Your task to perform on an android device: remove spam from my inbox in the gmail app Image 0: 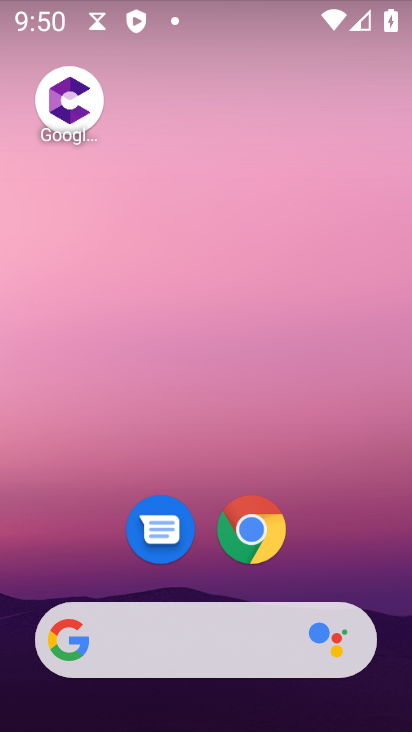
Step 0: drag from (333, 550) to (313, 164)
Your task to perform on an android device: remove spam from my inbox in the gmail app Image 1: 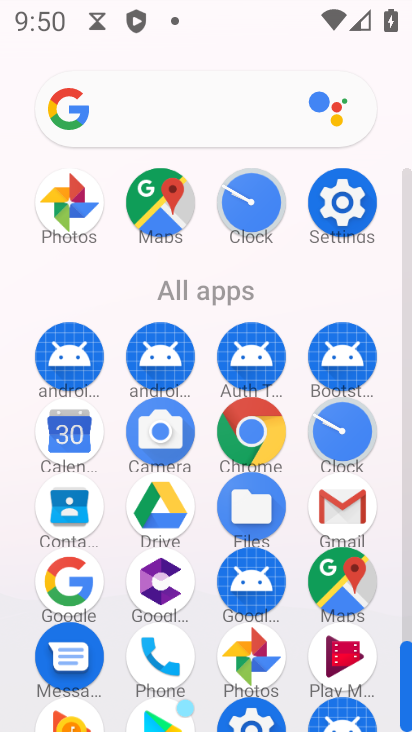
Step 1: drag from (203, 499) to (208, 286)
Your task to perform on an android device: remove spam from my inbox in the gmail app Image 2: 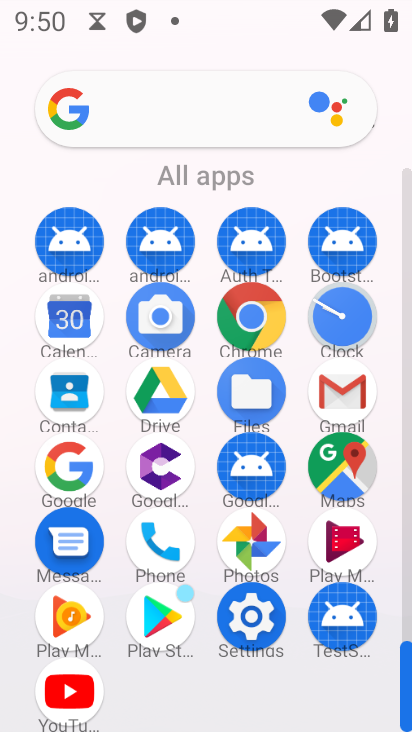
Step 2: click (342, 391)
Your task to perform on an android device: remove spam from my inbox in the gmail app Image 3: 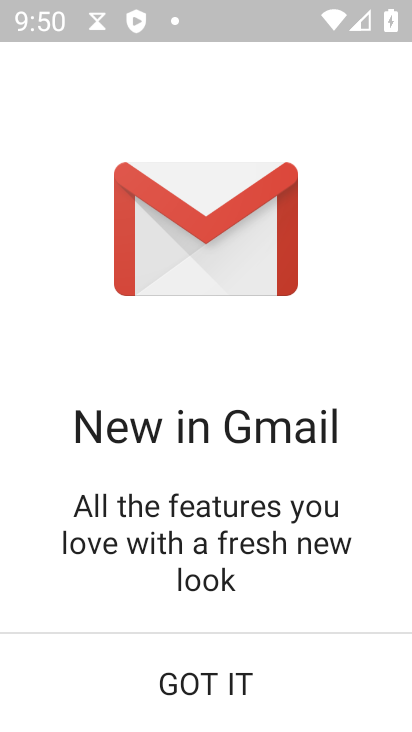
Step 3: click (208, 677)
Your task to perform on an android device: remove spam from my inbox in the gmail app Image 4: 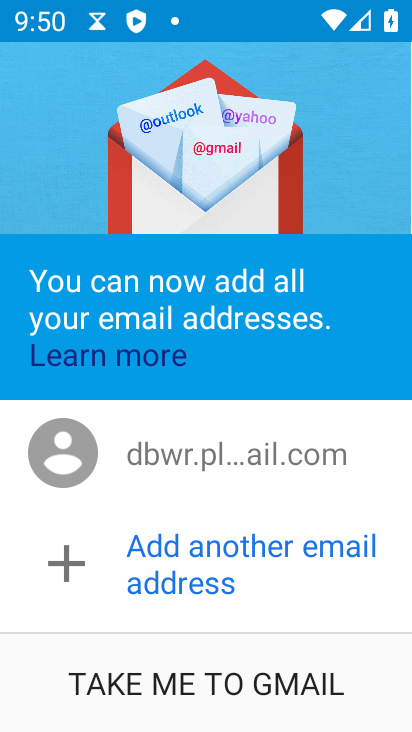
Step 4: click (206, 702)
Your task to perform on an android device: remove spam from my inbox in the gmail app Image 5: 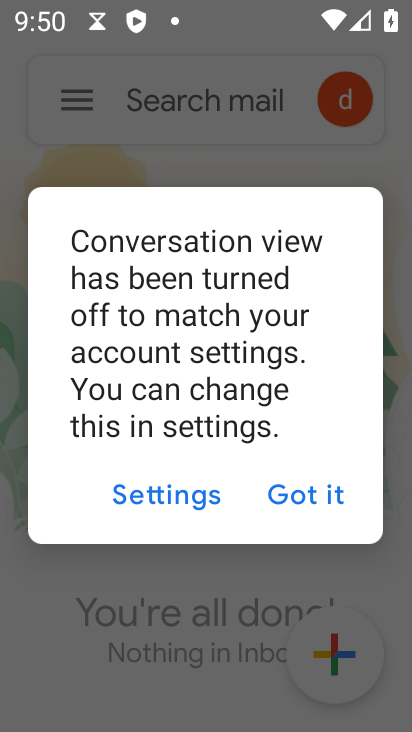
Step 5: click (308, 501)
Your task to perform on an android device: remove spam from my inbox in the gmail app Image 6: 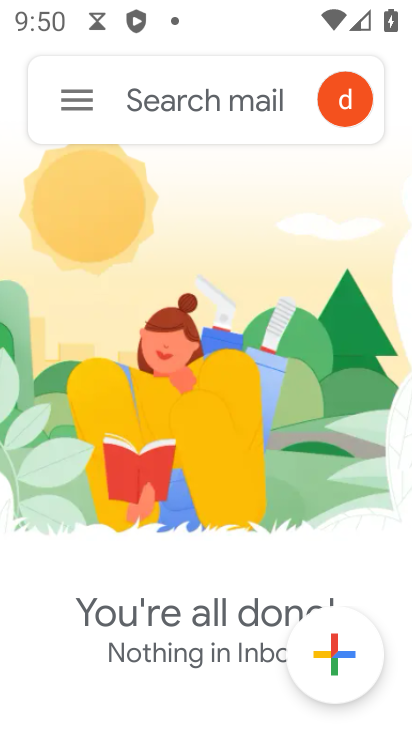
Step 6: click (76, 105)
Your task to perform on an android device: remove spam from my inbox in the gmail app Image 7: 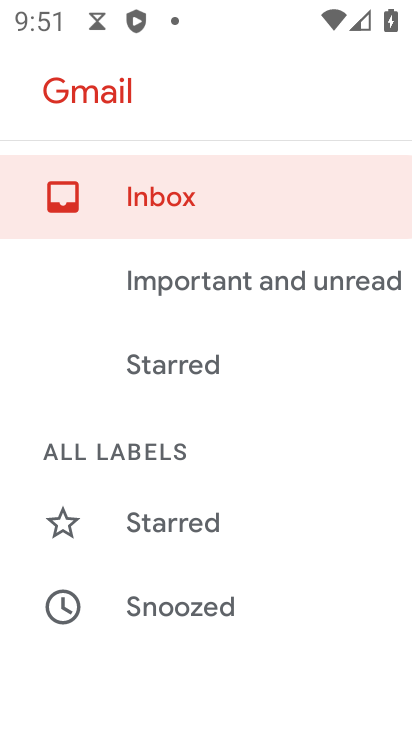
Step 7: drag from (196, 469) to (240, 379)
Your task to perform on an android device: remove spam from my inbox in the gmail app Image 8: 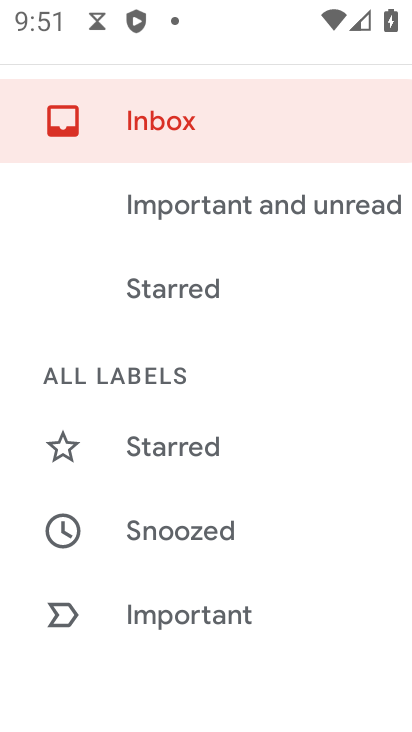
Step 8: drag from (172, 484) to (245, 379)
Your task to perform on an android device: remove spam from my inbox in the gmail app Image 9: 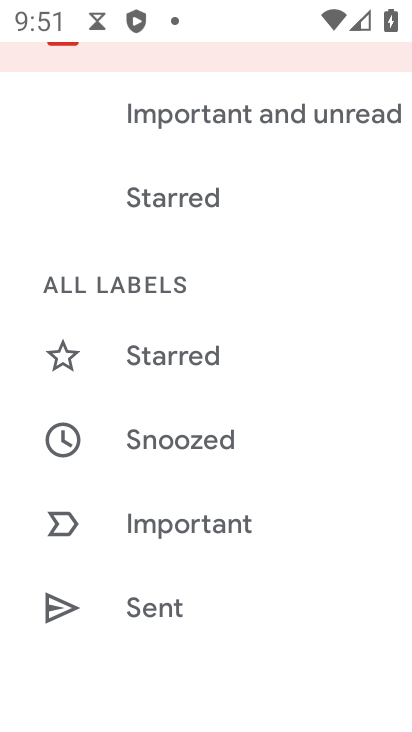
Step 9: drag from (171, 472) to (234, 368)
Your task to perform on an android device: remove spam from my inbox in the gmail app Image 10: 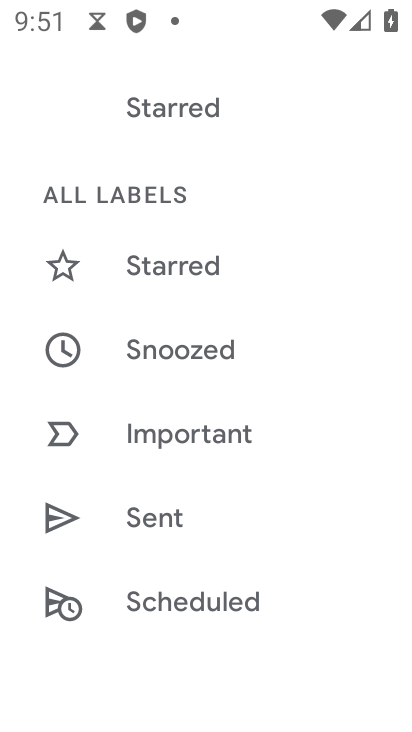
Step 10: drag from (159, 479) to (227, 361)
Your task to perform on an android device: remove spam from my inbox in the gmail app Image 11: 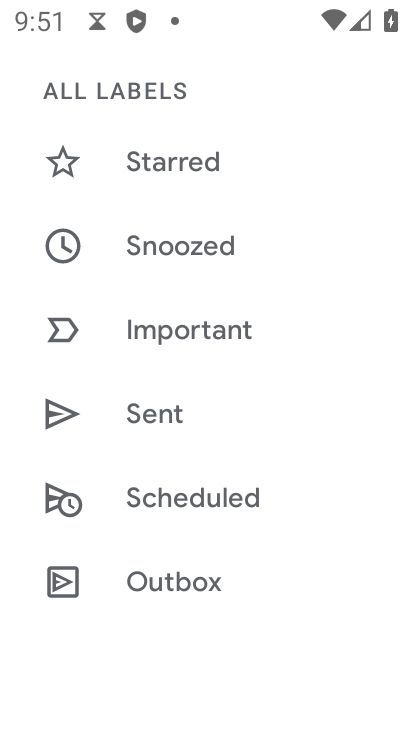
Step 11: drag from (162, 457) to (238, 350)
Your task to perform on an android device: remove spam from my inbox in the gmail app Image 12: 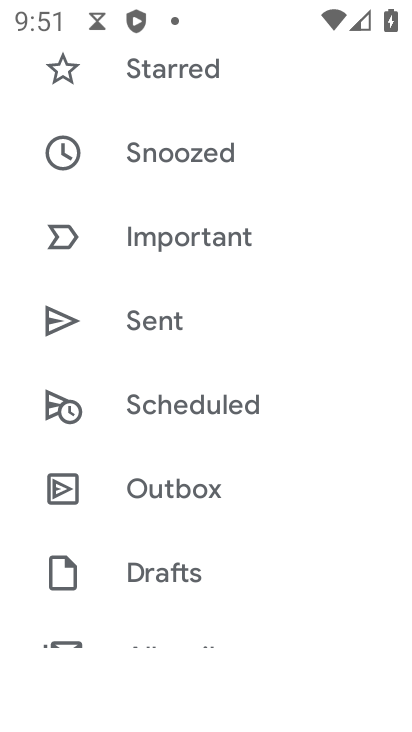
Step 12: drag from (168, 443) to (249, 350)
Your task to perform on an android device: remove spam from my inbox in the gmail app Image 13: 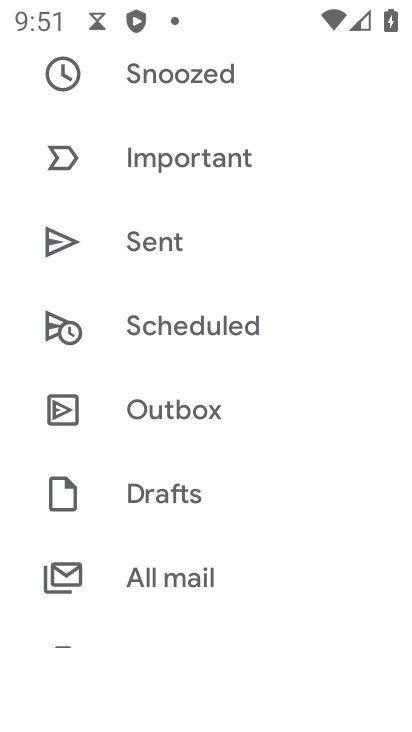
Step 13: drag from (170, 447) to (254, 347)
Your task to perform on an android device: remove spam from my inbox in the gmail app Image 14: 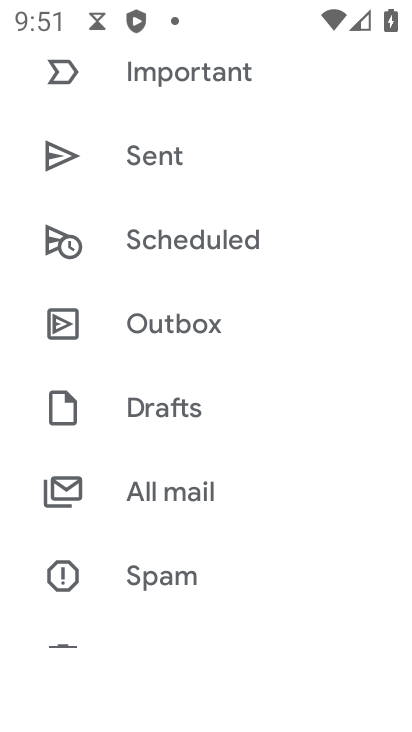
Step 14: drag from (167, 458) to (284, 332)
Your task to perform on an android device: remove spam from my inbox in the gmail app Image 15: 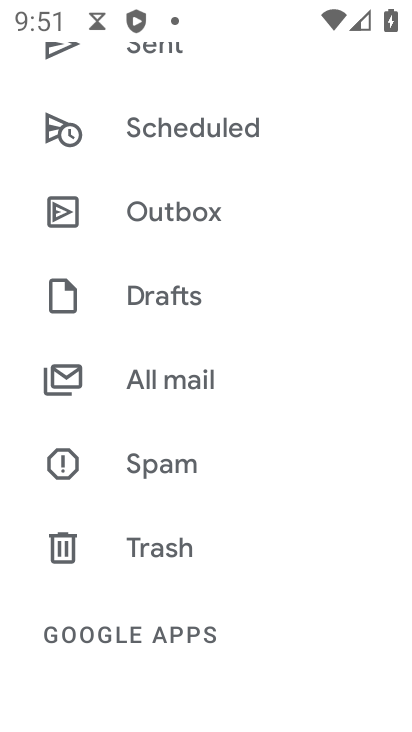
Step 15: click (196, 457)
Your task to perform on an android device: remove spam from my inbox in the gmail app Image 16: 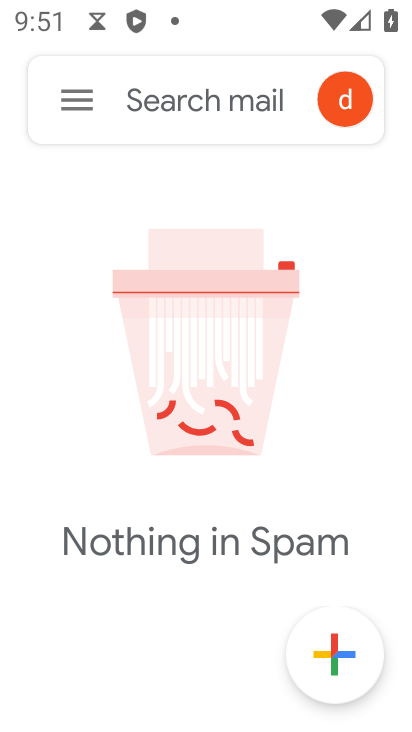
Step 16: task complete